Your task to perform on an android device: turn on the 12-hour format for clock Image 0: 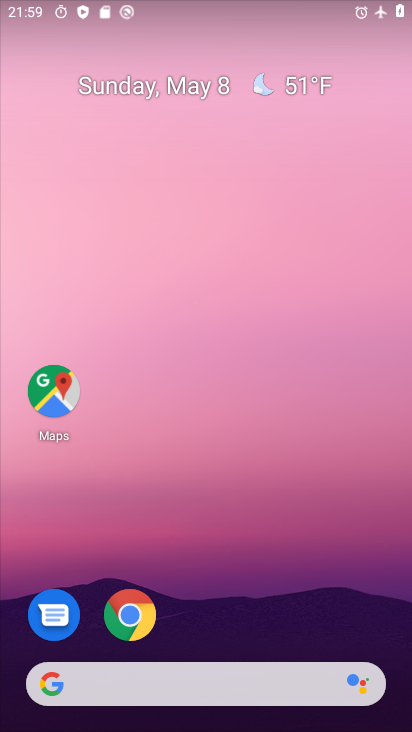
Step 0: drag from (190, 634) to (158, 250)
Your task to perform on an android device: turn on the 12-hour format for clock Image 1: 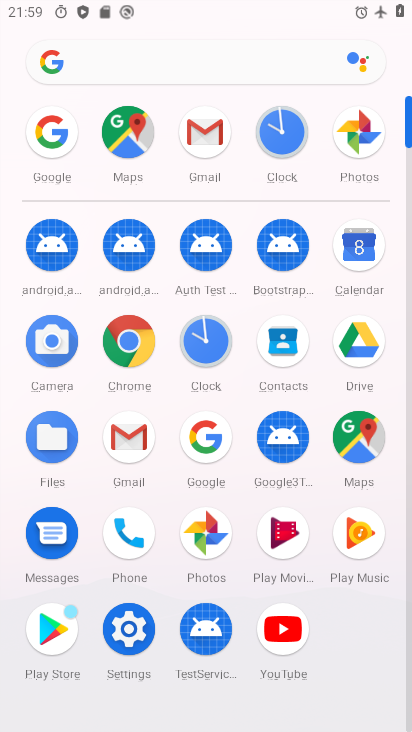
Step 1: click (277, 148)
Your task to perform on an android device: turn on the 12-hour format for clock Image 2: 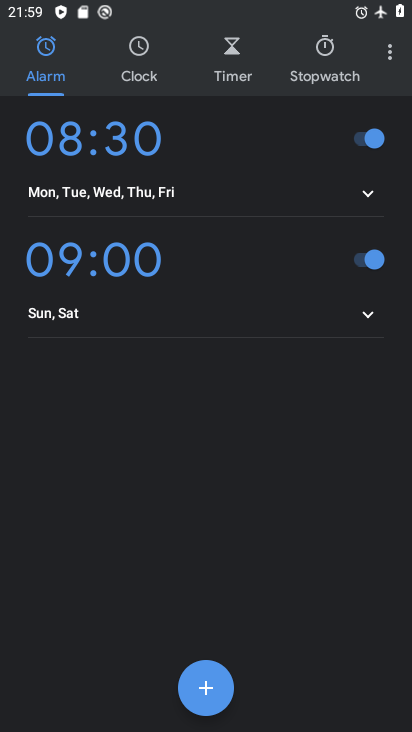
Step 2: click (384, 48)
Your task to perform on an android device: turn on the 12-hour format for clock Image 3: 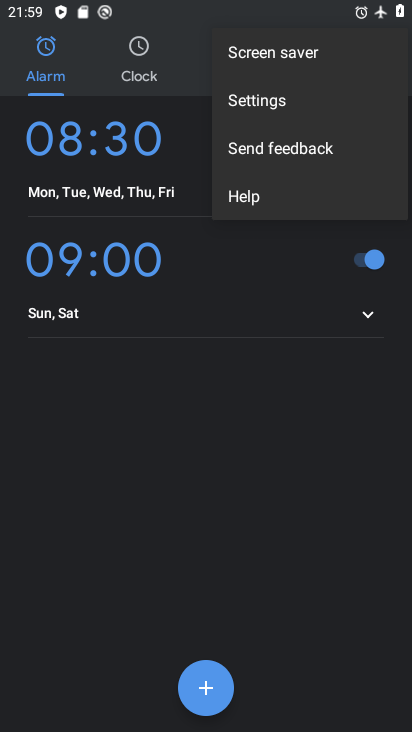
Step 3: click (261, 99)
Your task to perform on an android device: turn on the 12-hour format for clock Image 4: 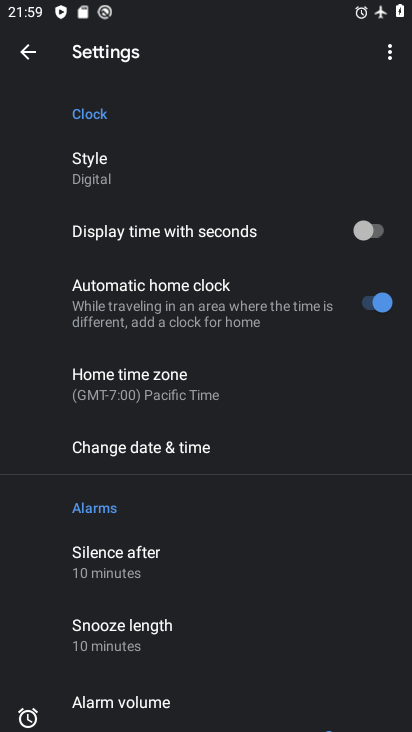
Step 4: click (182, 445)
Your task to perform on an android device: turn on the 12-hour format for clock Image 5: 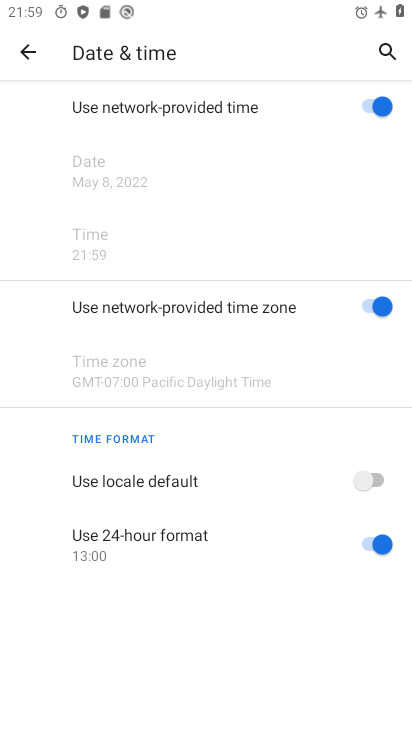
Step 5: click (364, 532)
Your task to perform on an android device: turn on the 12-hour format for clock Image 6: 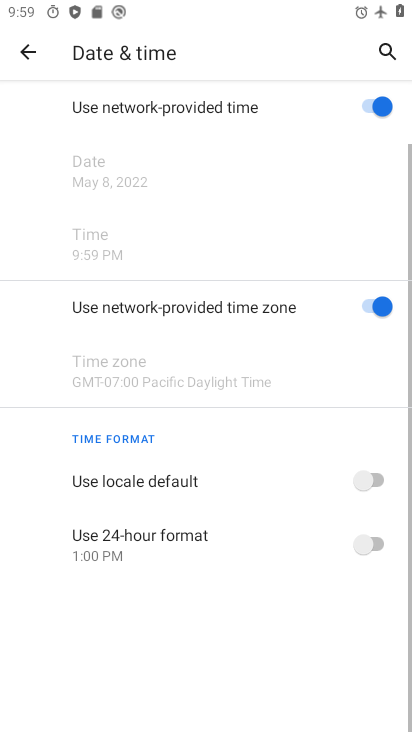
Step 6: click (382, 471)
Your task to perform on an android device: turn on the 12-hour format for clock Image 7: 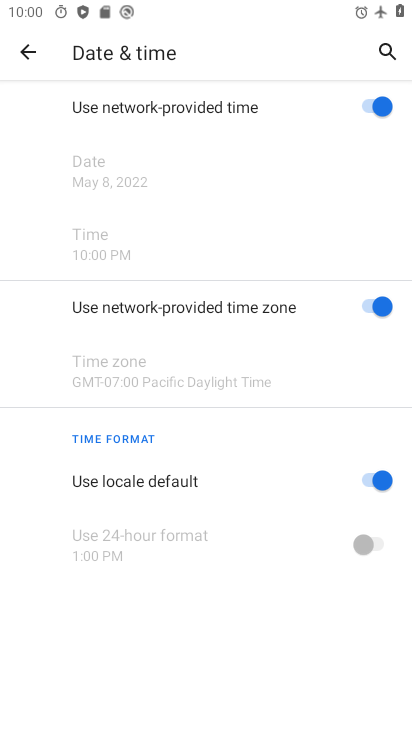
Step 7: task complete